Your task to perform on an android device: What's on my calendar today? Image 0: 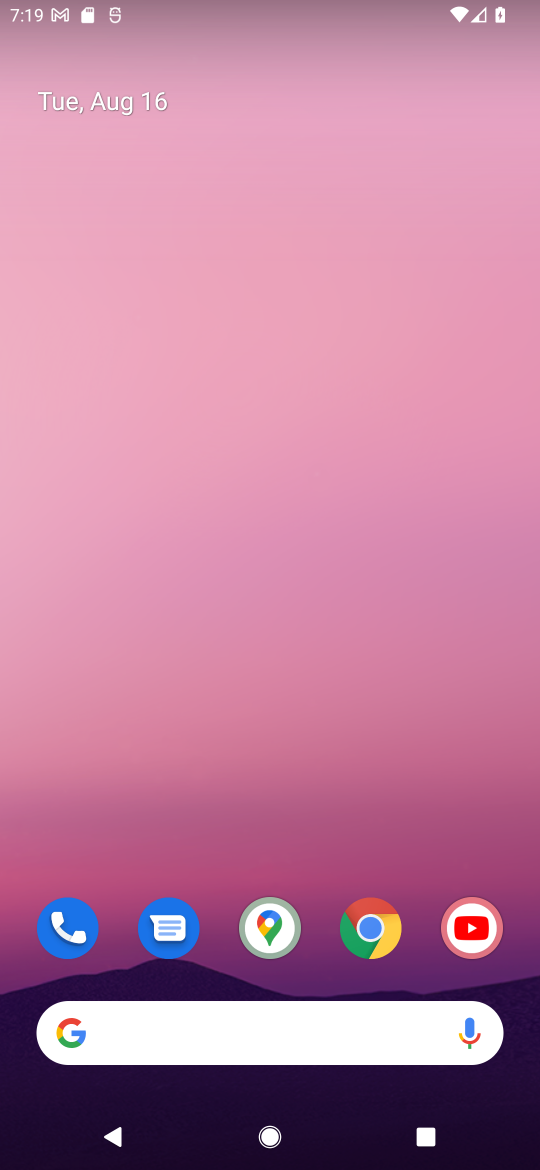
Step 0: drag from (197, 1026) to (255, 31)
Your task to perform on an android device: What's on my calendar today? Image 1: 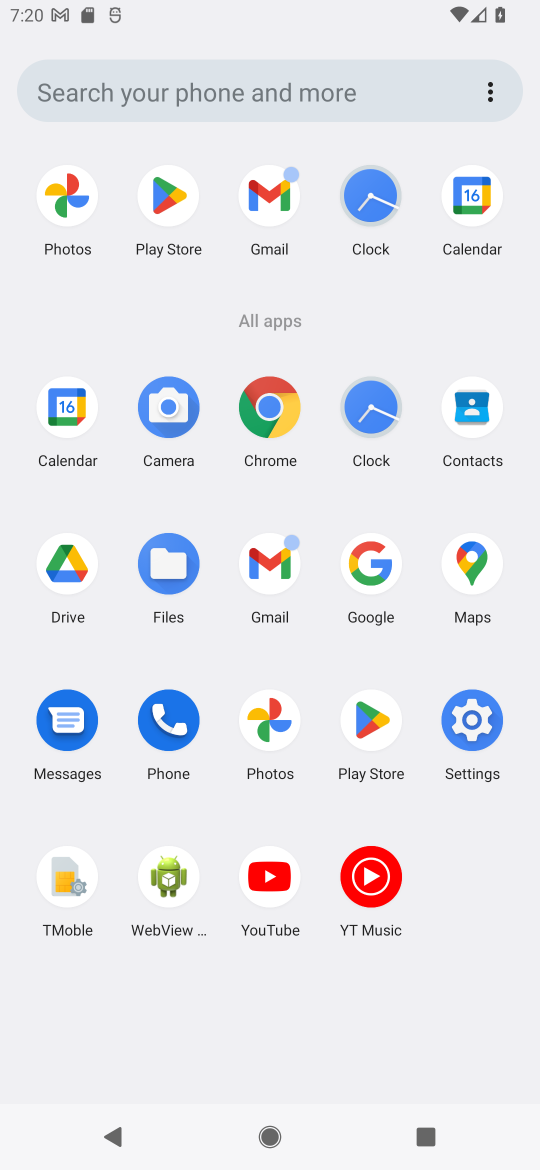
Step 1: click (479, 426)
Your task to perform on an android device: What's on my calendar today? Image 2: 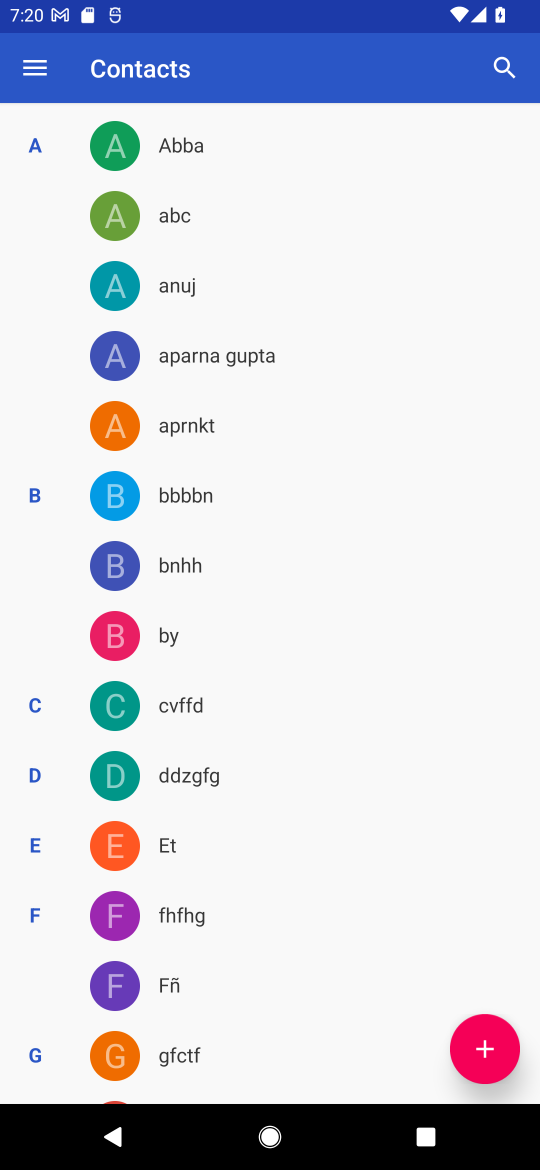
Step 2: press home button
Your task to perform on an android device: What's on my calendar today? Image 3: 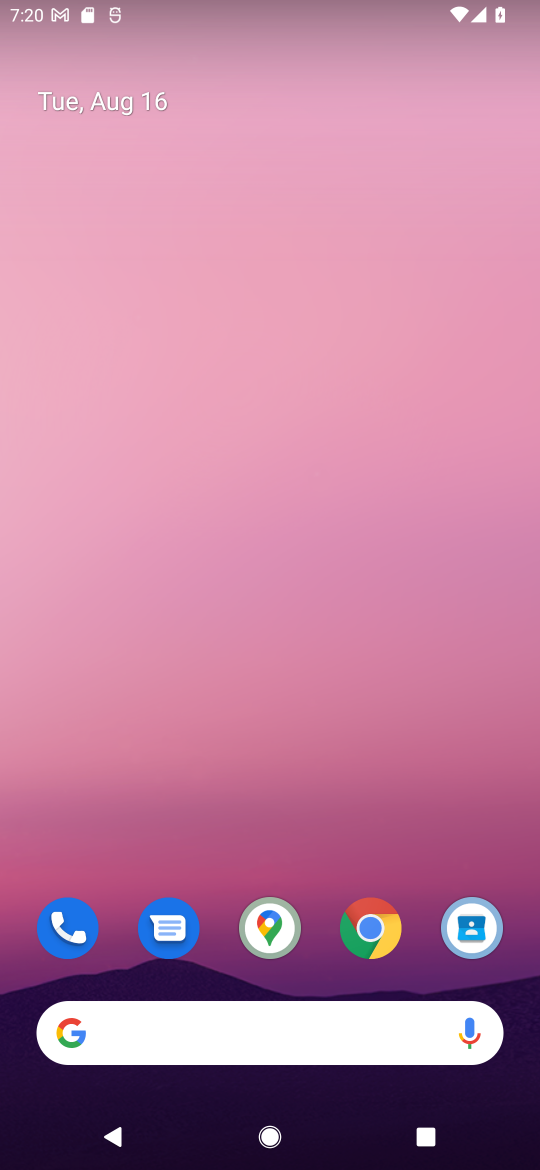
Step 3: drag from (258, 1042) to (399, 161)
Your task to perform on an android device: What's on my calendar today? Image 4: 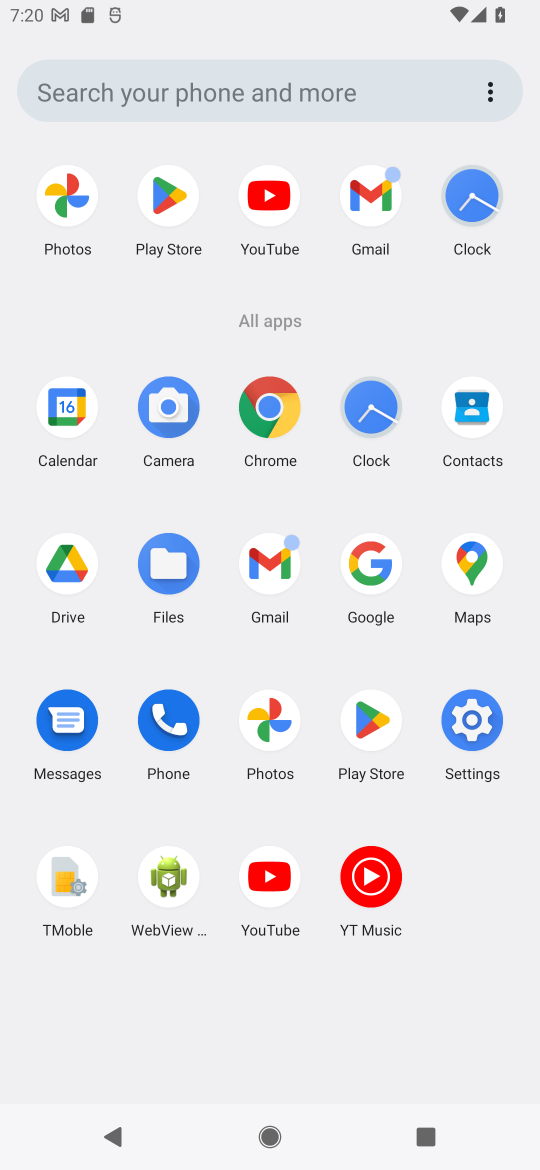
Step 4: click (59, 419)
Your task to perform on an android device: What's on my calendar today? Image 5: 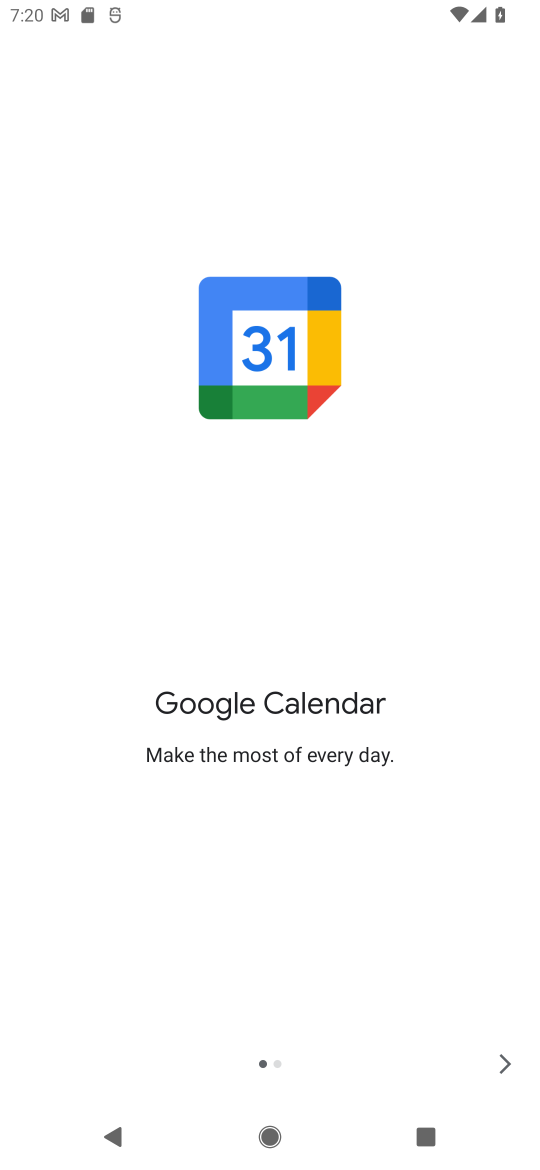
Step 5: click (492, 1059)
Your task to perform on an android device: What's on my calendar today? Image 6: 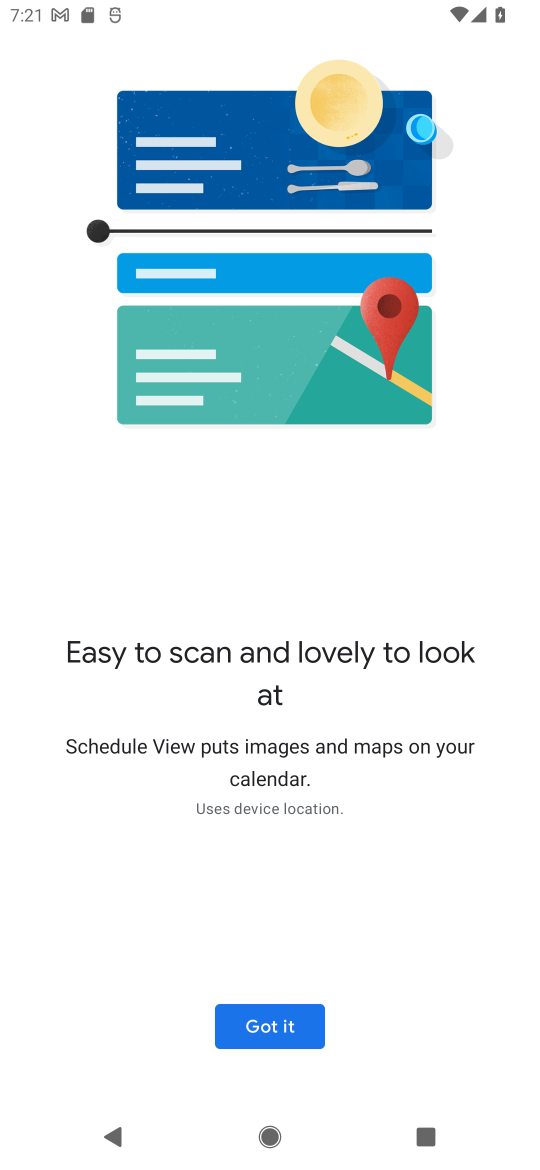
Step 6: press home button
Your task to perform on an android device: What's on my calendar today? Image 7: 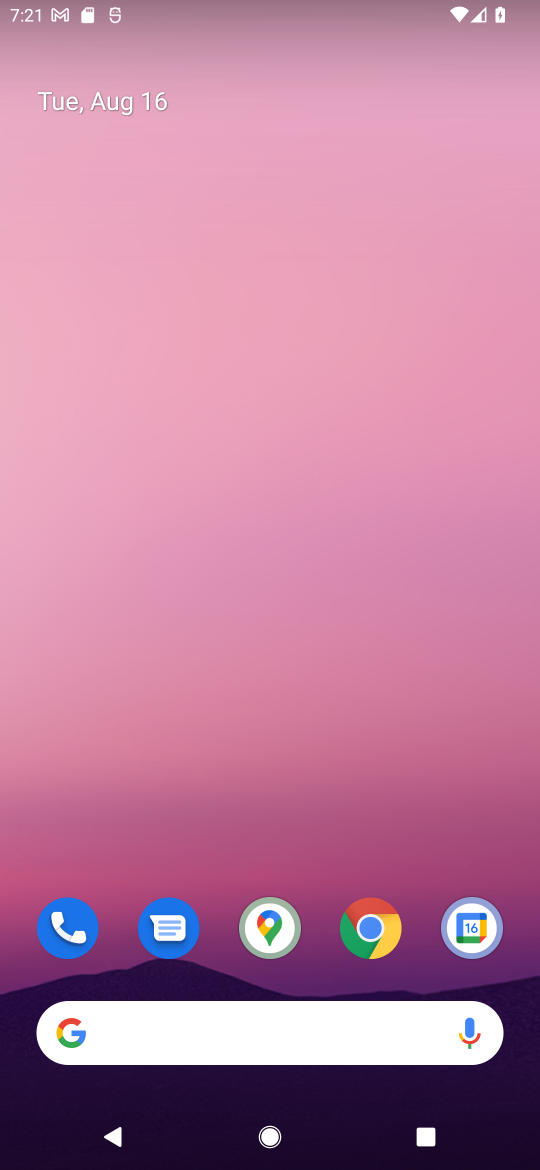
Step 7: drag from (287, 1007) to (144, 6)
Your task to perform on an android device: What's on my calendar today? Image 8: 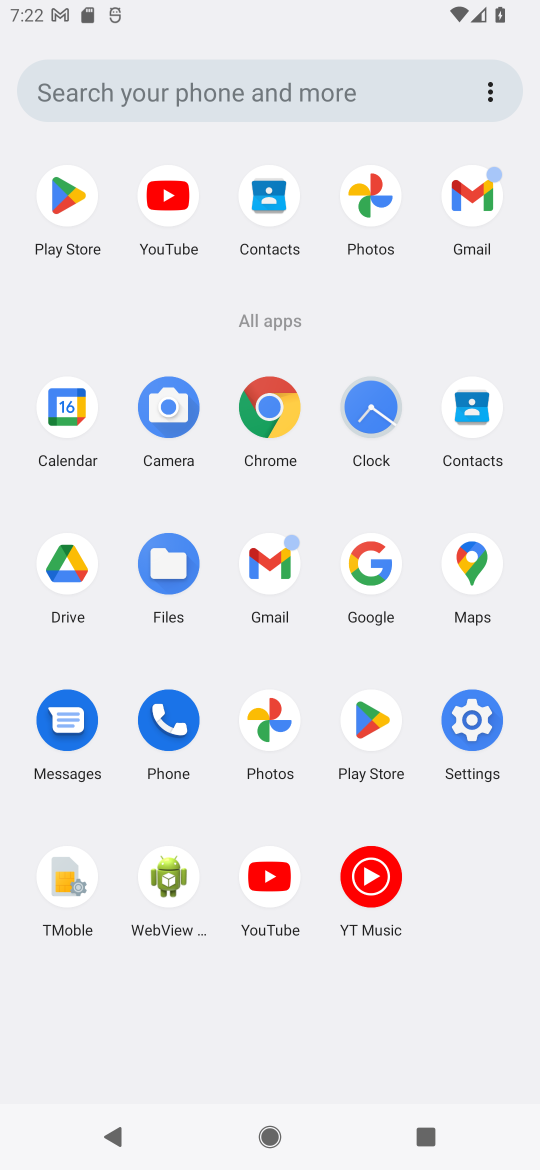
Step 8: click (52, 414)
Your task to perform on an android device: What's on my calendar today? Image 9: 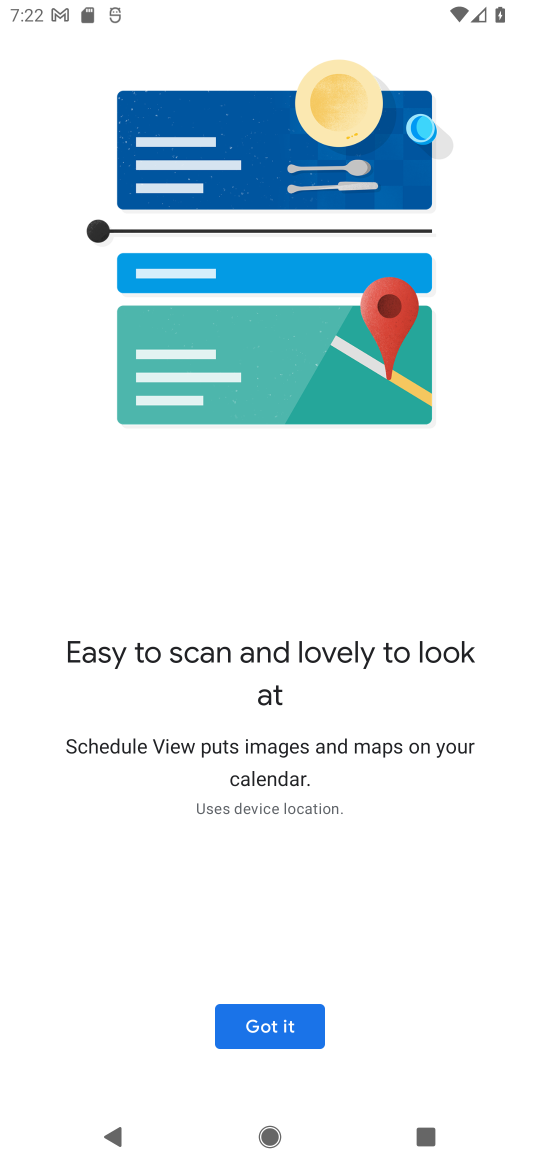
Step 9: click (213, 1039)
Your task to perform on an android device: What's on my calendar today? Image 10: 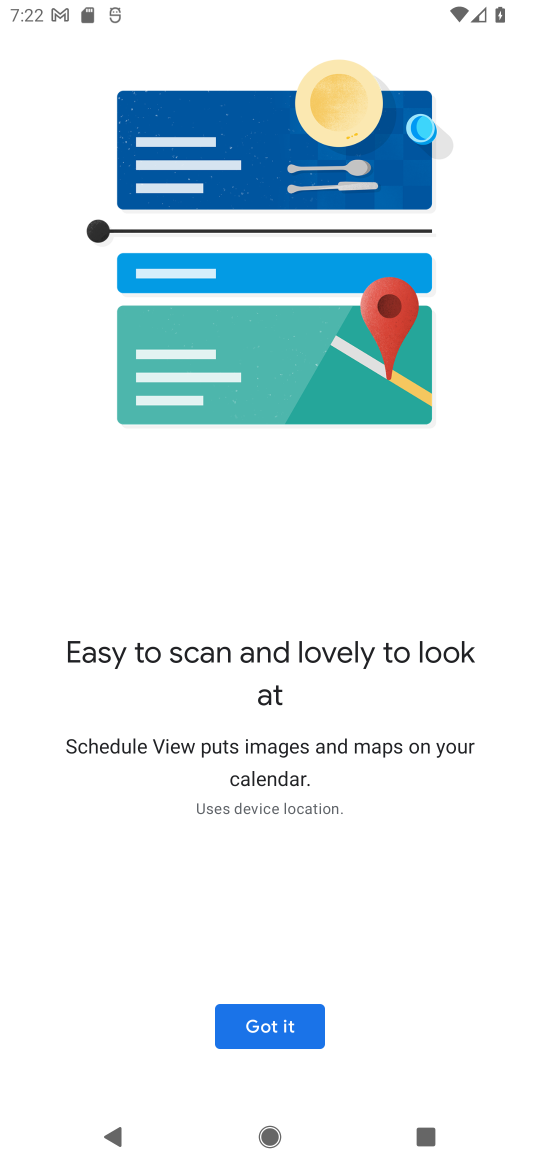
Step 10: click (223, 1040)
Your task to perform on an android device: What's on my calendar today? Image 11: 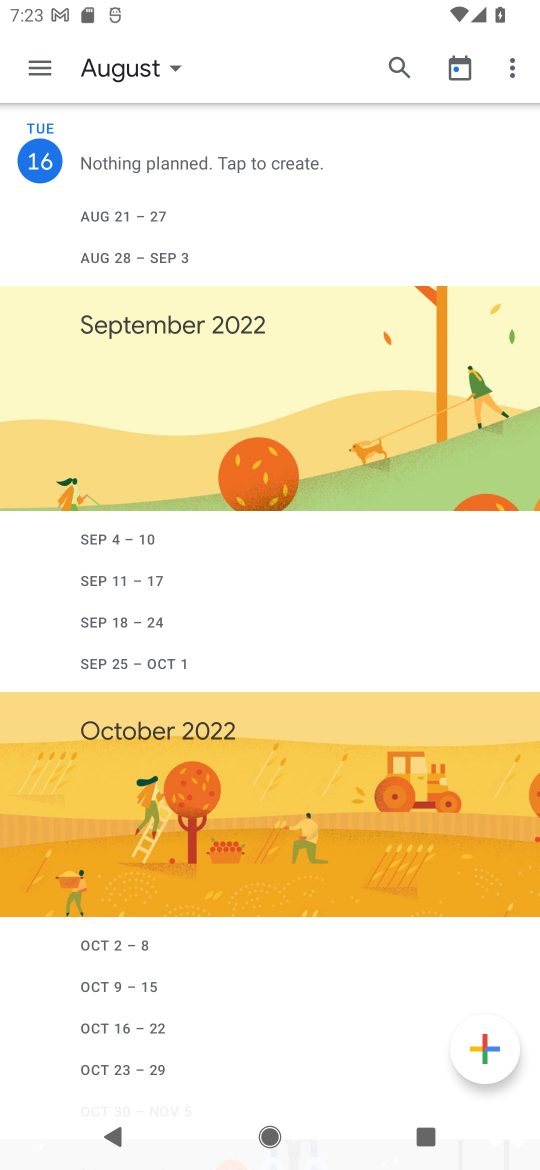
Step 11: task complete